Your task to perform on an android device: Go to wifi settings Image 0: 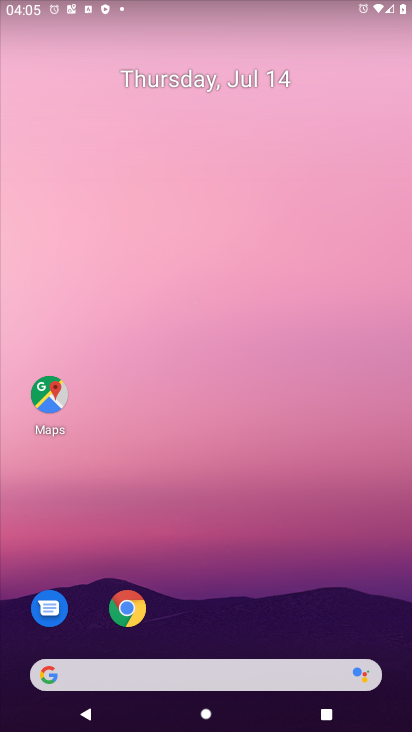
Step 0: drag from (393, 627) to (338, 26)
Your task to perform on an android device: Go to wifi settings Image 1: 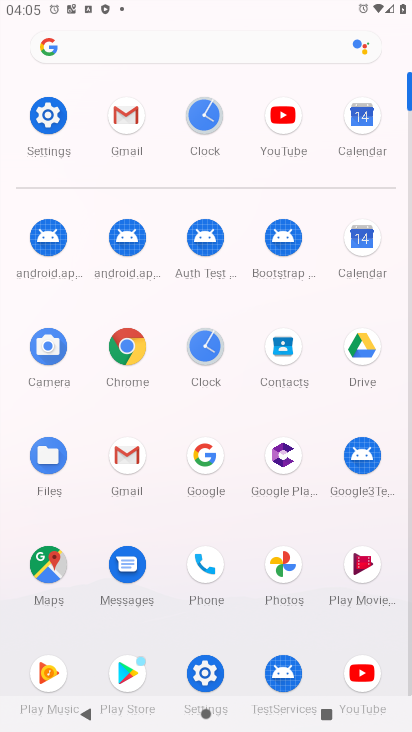
Step 1: click (204, 672)
Your task to perform on an android device: Go to wifi settings Image 2: 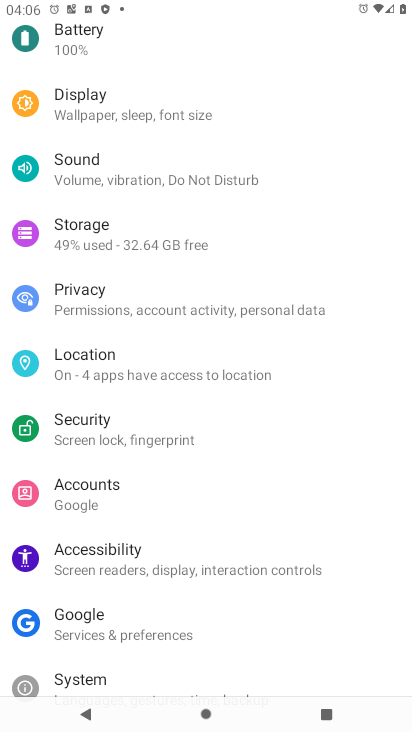
Step 2: drag from (315, 165) to (324, 356)
Your task to perform on an android device: Go to wifi settings Image 3: 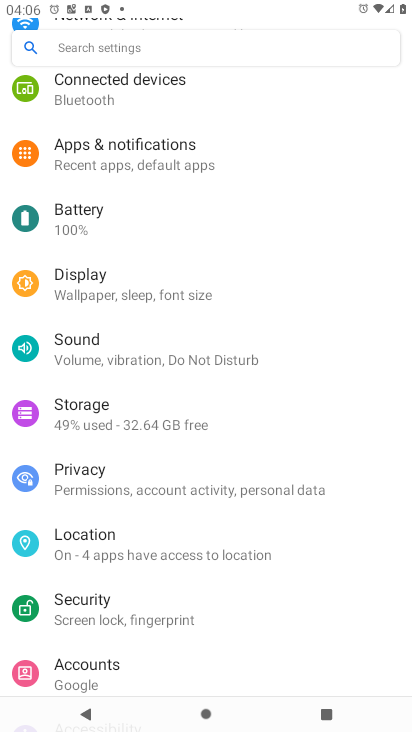
Step 3: drag from (320, 135) to (360, 371)
Your task to perform on an android device: Go to wifi settings Image 4: 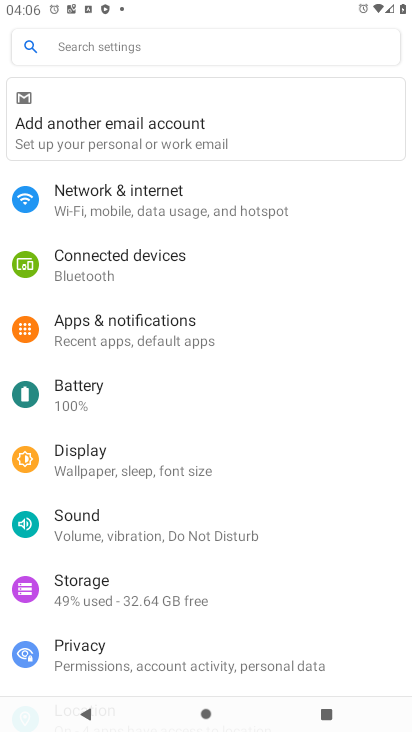
Step 4: click (93, 186)
Your task to perform on an android device: Go to wifi settings Image 5: 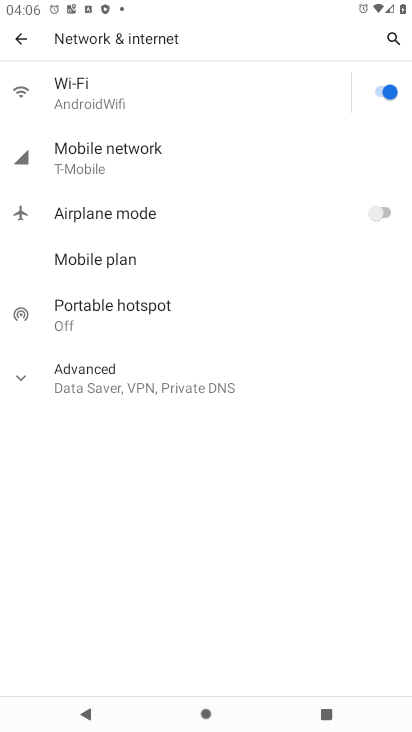
Step 5: click (68, 79)
Your task to perform on an android device: Go to wifi settings Image 6: 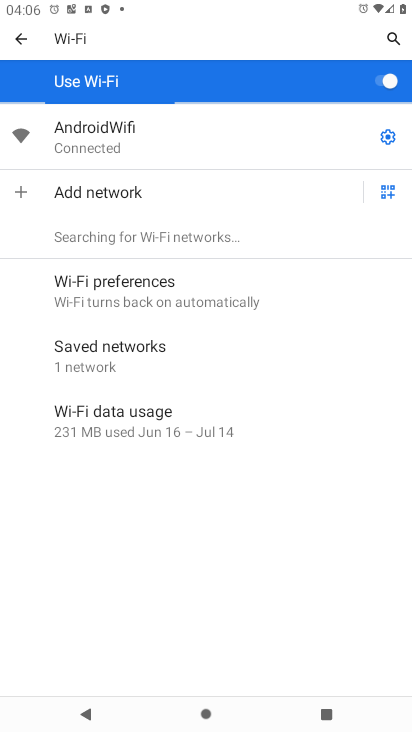
Step 6: click (387, 138)
Your task to perform on an android device: Go to wifi settings Image 7: 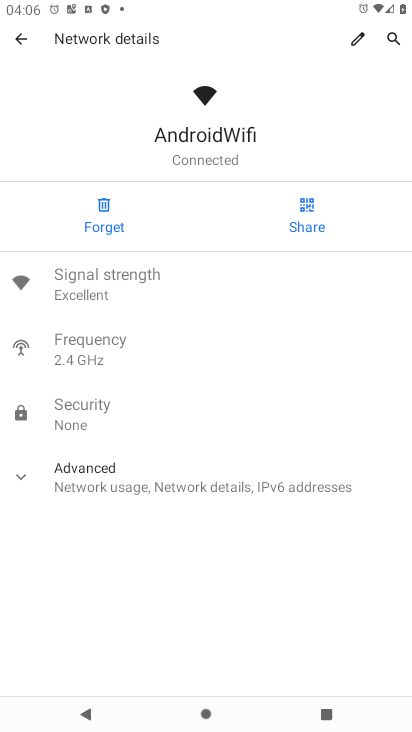
Step 7: click (13, 479)
Your task to perform on an android device: Go to wifi settings Image 8: 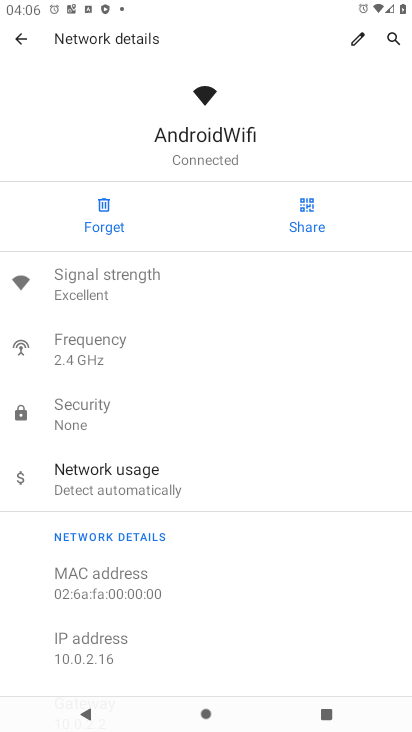
Step 8: task complete